Your task to perform on an android device: Go to ESPN.com Image 0: 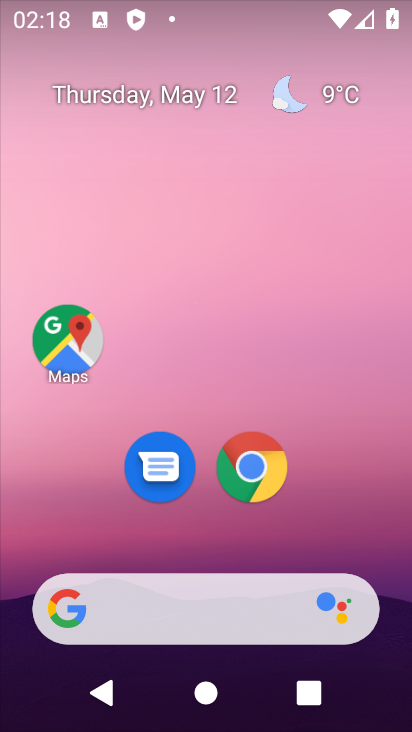
Step 0: drag from (324, 517) to (327, 140)
Your task to perform on an android device: Go to ESPN.com Image 1: 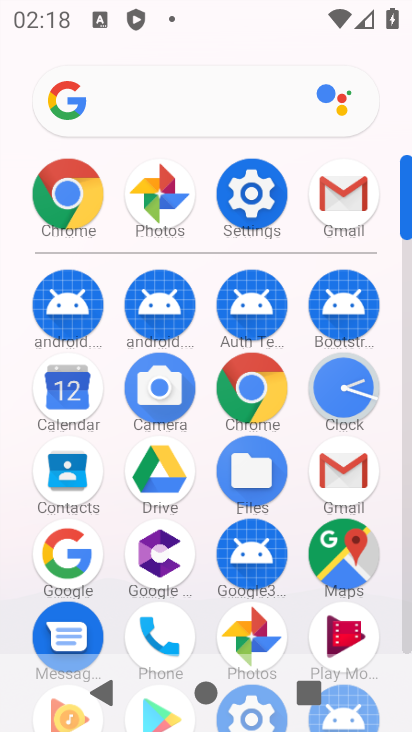
Step 1: click (86, 191)
Your task to perform on an android device: Go to ESPN.com Image 2: 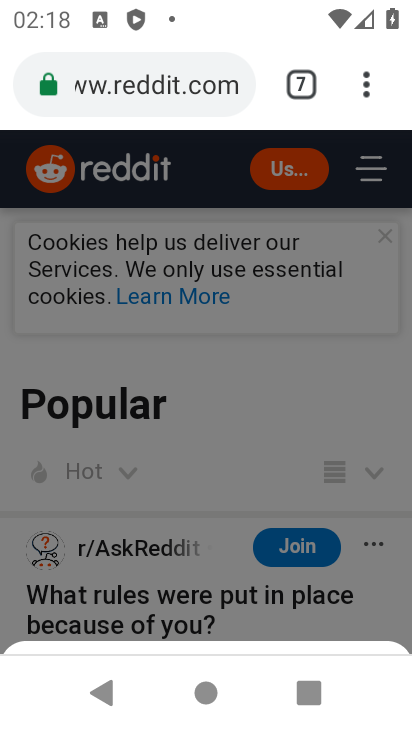
Step 2: click (352, 78)
Your task to perform on an android device: Go to ESPN.com Image 3: 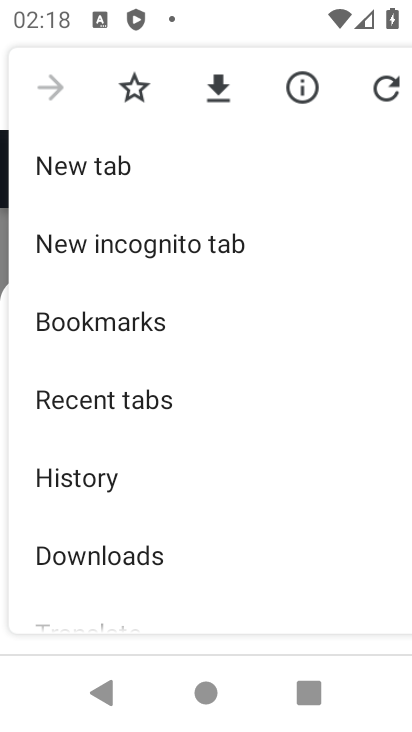
Step 3: click (123, 169)
Your task to perform on an android device: Go to ESPN.com Image 4: 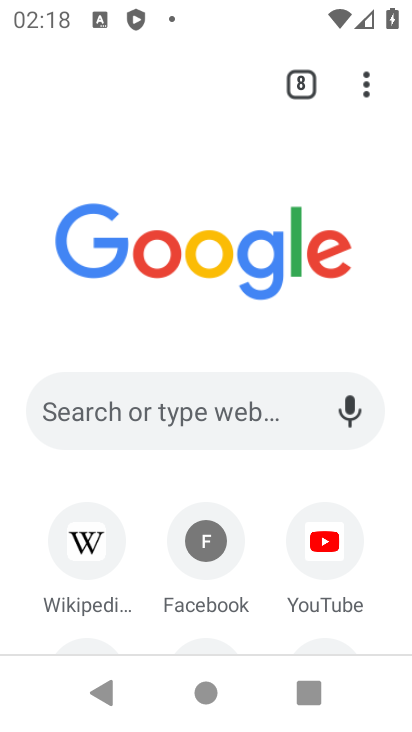
Step 4: drag from (296, 547) to (313, 260)
Your task to perform on an android device: Go to ESPN.com Image 5: 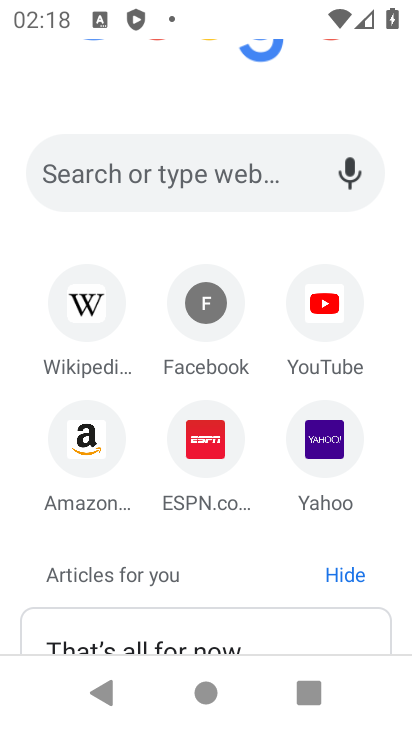
Step 5: click (214, 429)
Your task to perform on an android device: Go to ESPN.com Image 6: 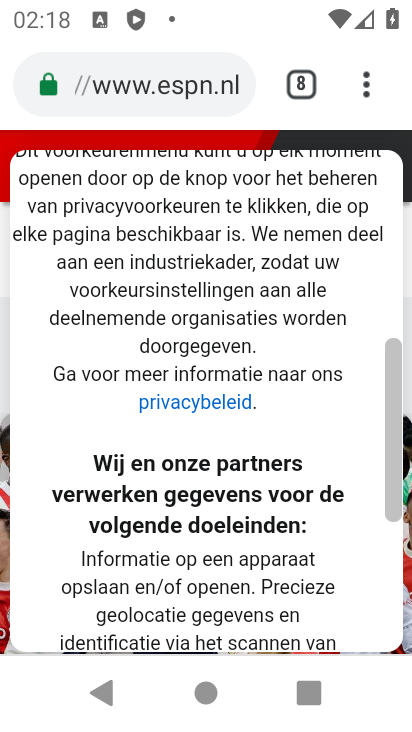
Step 6: task complete